Your task to perform on an android device: delete browsing data in the chrome app Image 0: 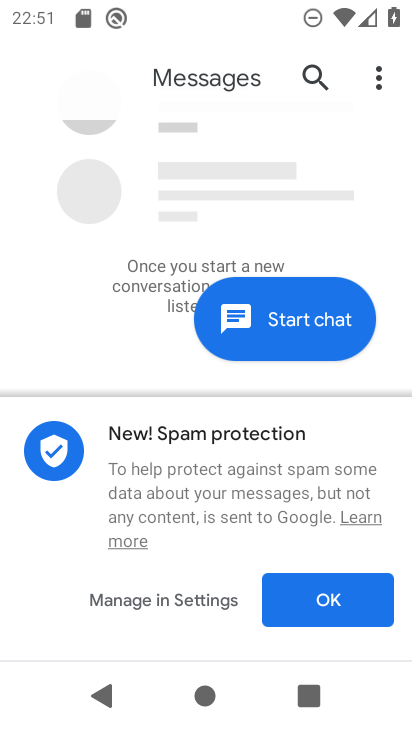
Step 0: press home button
Your task to perform on an android device: delete browsing data in the chrome app Image 1: 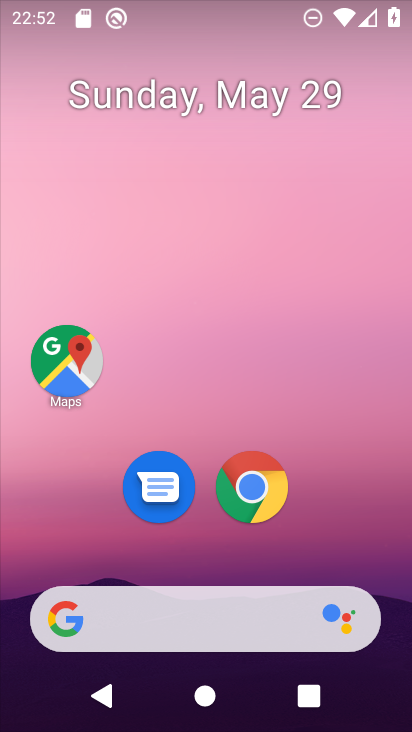
Step 1: click (252, 478)
Your task to perform on an android device: delete browsing data in the chrome app Image 2: 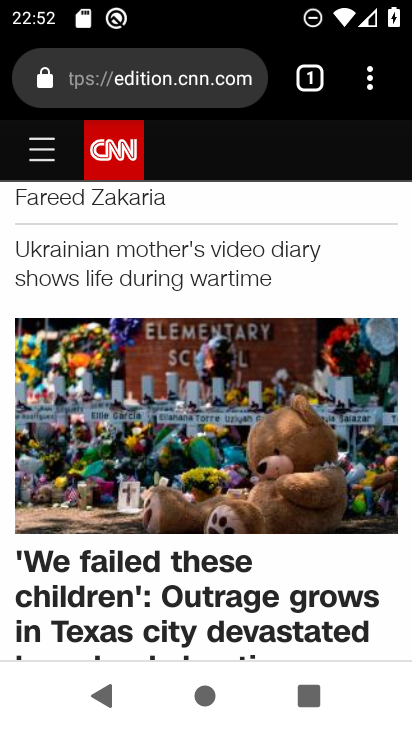
Step 2: click (373, 75)
Your task to perform on an android device: delete browsing data in the chrome app Image 3: 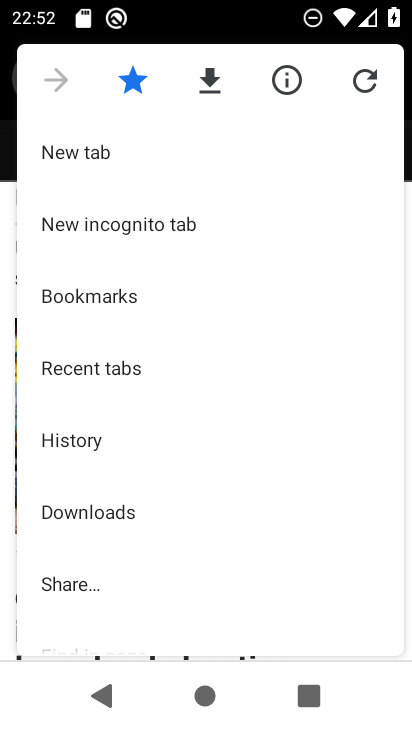
Step 3: click (111, 437)
Your task to perform on an android device: delete browsing data in the chrome app Image 4: 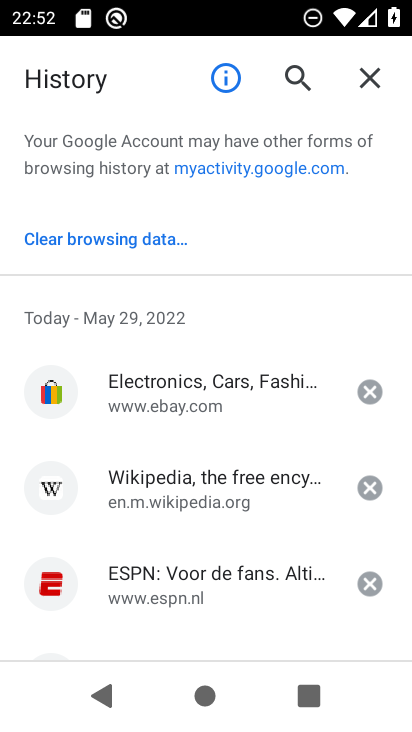
Step 4: click (97, 238)
Your task to perform on an android device: delete browsing data in the chrome app Image 5: 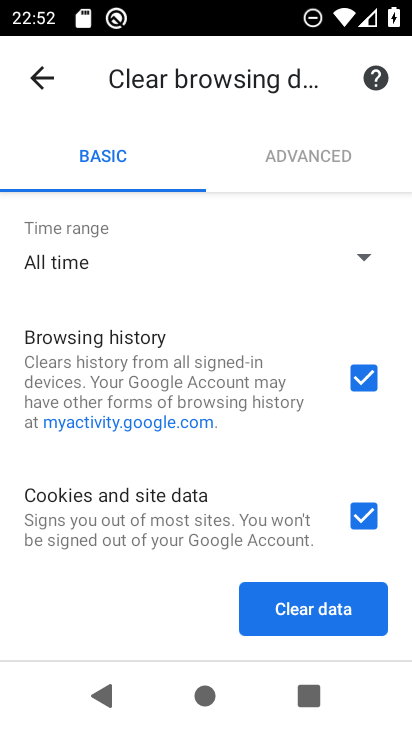
Step 5: drag from (227, 464) to (238, 175)
Your task to perform on an android device: delete browsing data in the chrome app Image 6: 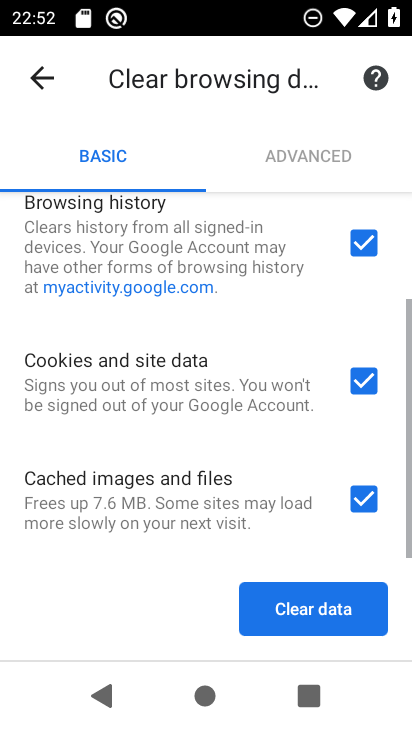
Step 6: click (321, 604)
Your task to perform on an android device: delete browsing data in the chrome app Image 7: 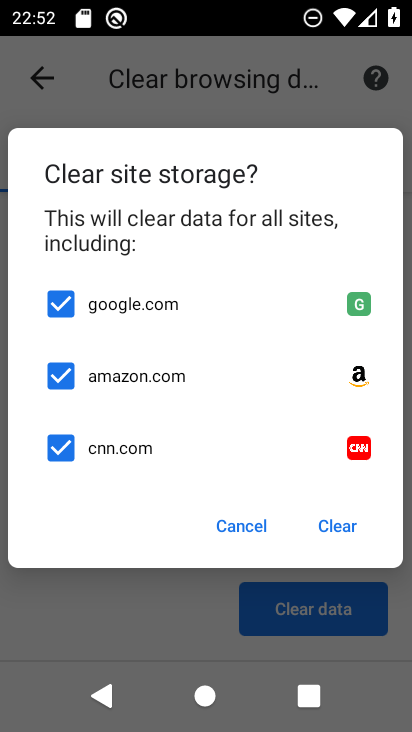
Step 7: click (343, 517)
Your task to perform on an android device: delete browsing data in the chrome app Image 8: 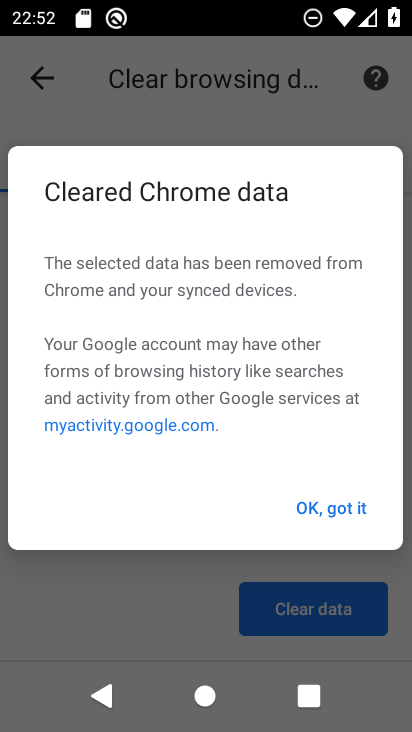
Step 8: task complete